Your task to perform on an android device: Open wifi settings Image 0: 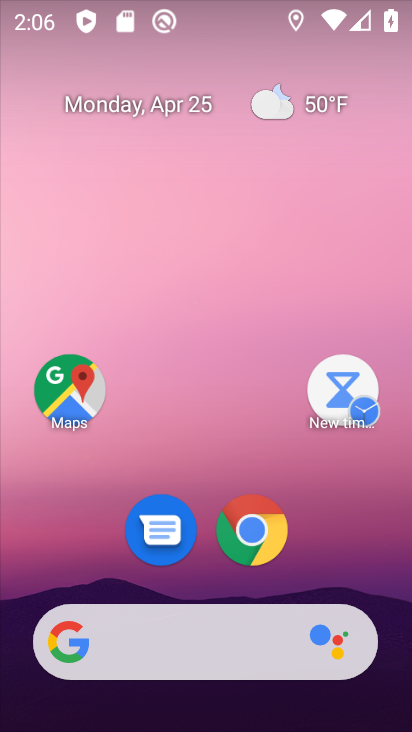
Step 0: drag from (191, 588) to (53, 606)
Your task to perform on an android device: Open wifi settings Image 1: 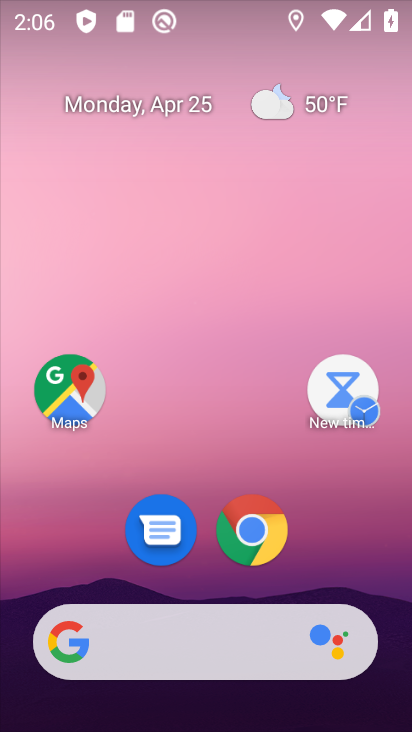
Step 1: click (340, 189)
Your task to perform on an android device: Open wifi settings Image 2: 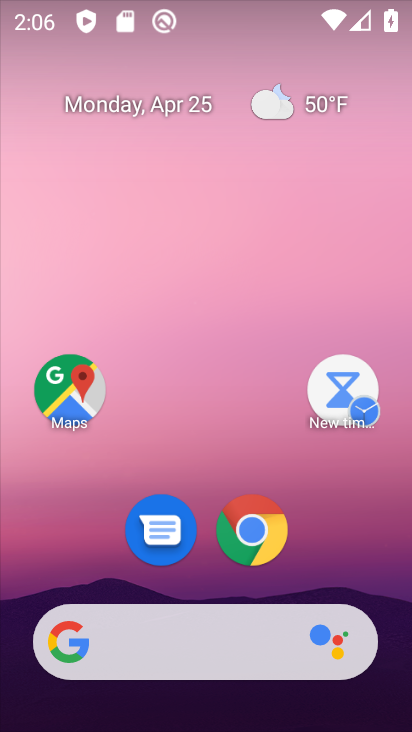
Step 2: drag from (207, 578) to (227, 22)
Your task to perform on an android device: Open wifi settings Image 3: 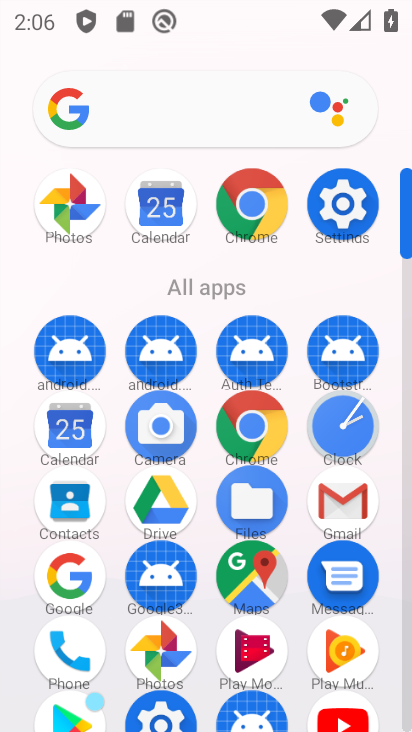
Step 3: click (336, 198)
Your task to perform on an android device: Open wifi settings Image 4: 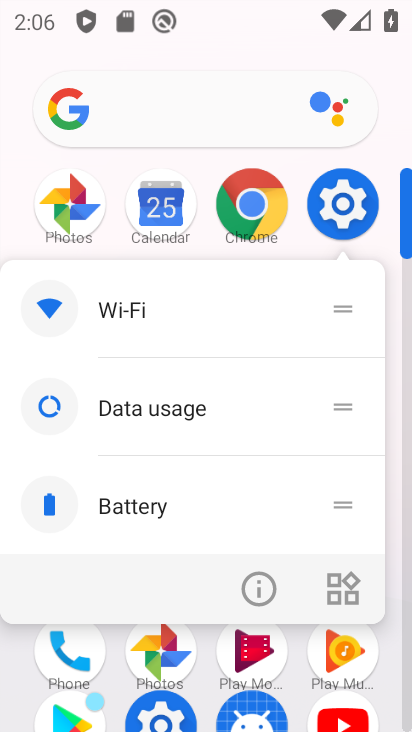
Step 4: click (341, 207)
Your task to perform on an android device: Open wifi settings Image 5: 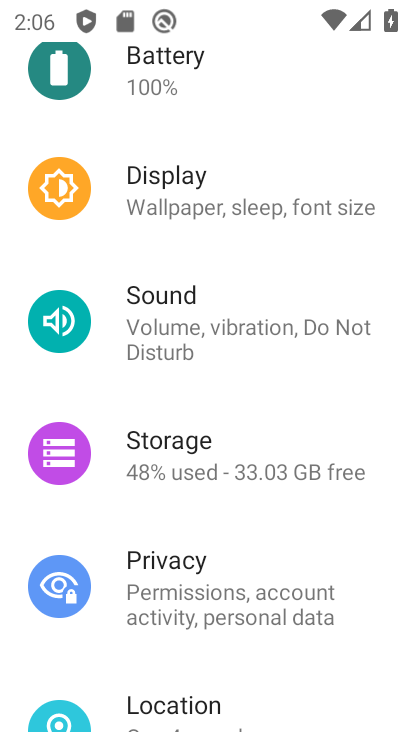
Step 5: drag from (213, 162) to (200, 528)
Your task to perform on an android device: Open wifi settings Image 6: 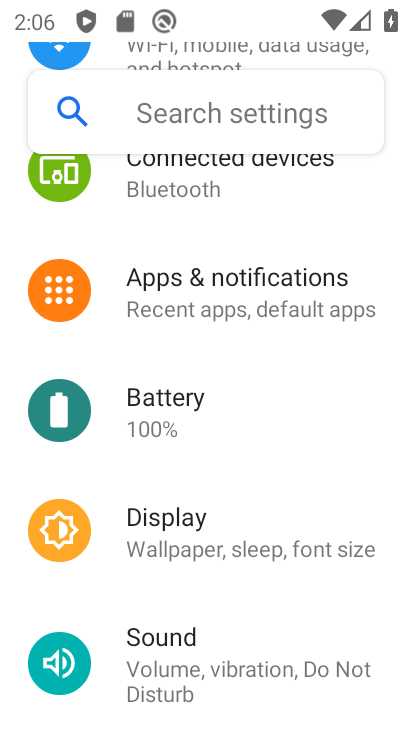
Step 6: drag from (183, 209) to (193, 483)
Your task to perform on an android device: Open wifi settings Image 7: 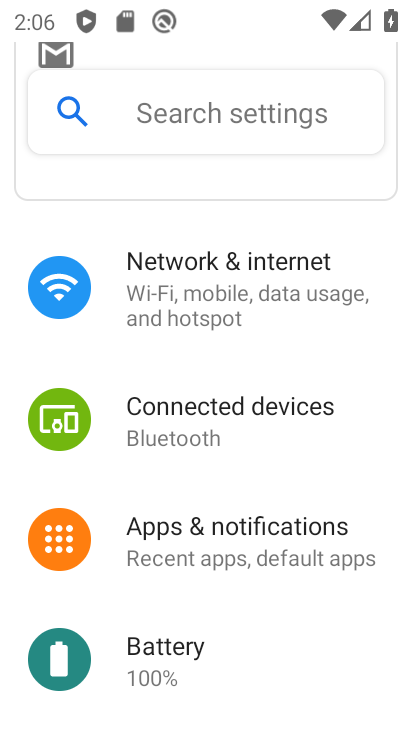
Step 7: click (192, 313)
Your task to perform on an android device: Open wifi settings Image 8: 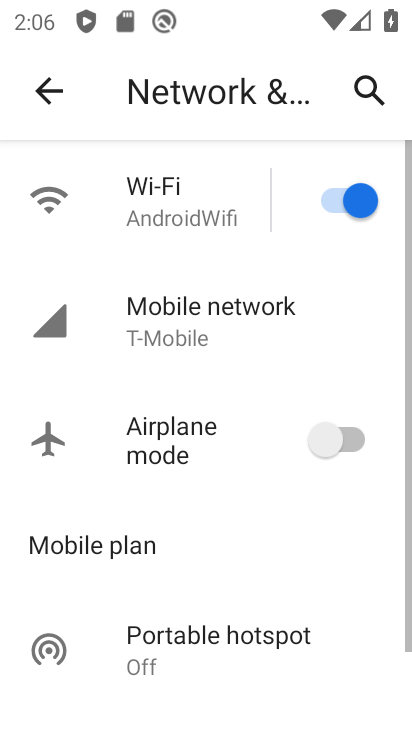
Step 8: click (172, 221)
Your task to perform on an android device: Open wifi settings Image 9: 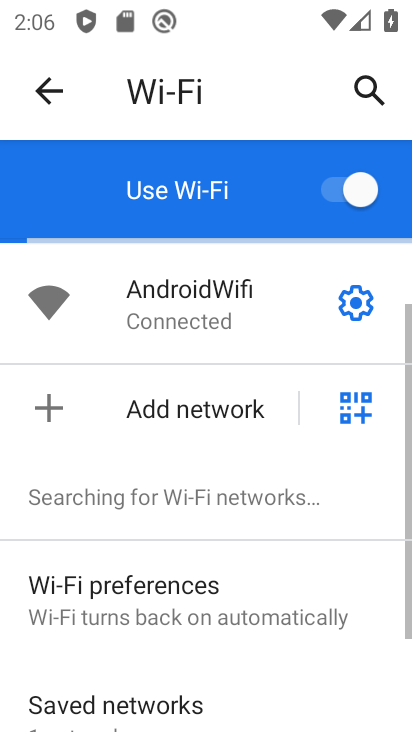
Step 9: task complete